Your task to perform on an android device: turn on priority inbox in the gmail app Image 0: 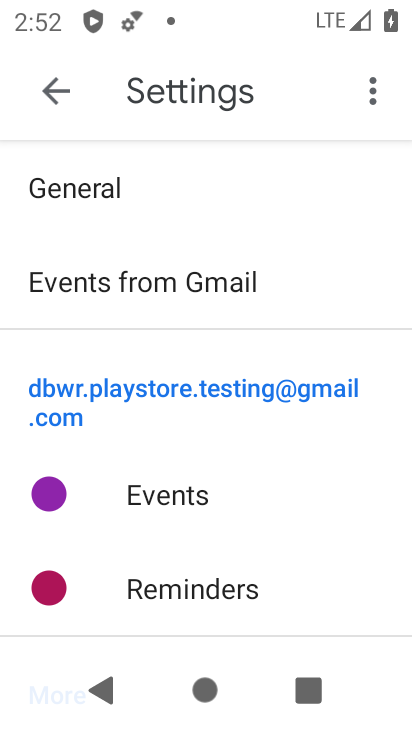
Step 0: press home button
Your task to perform on an android device: turn on priority inbox in the gmail app Image 1: 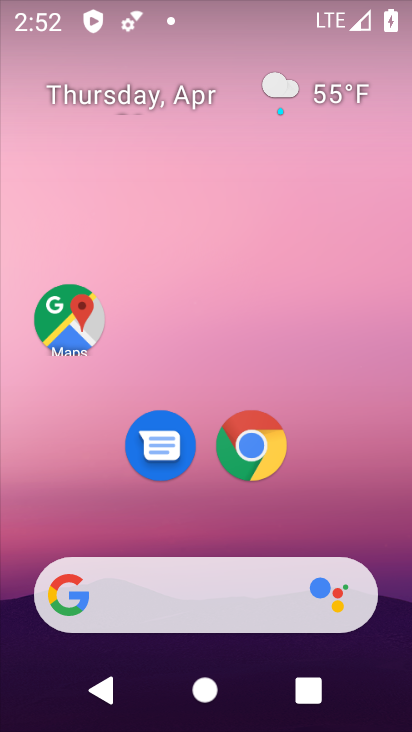
Step 1: drag from (322, 508) to (346, 0)
Your task to perform on an android device: turn on priority inbox in the gmail app Image 2: 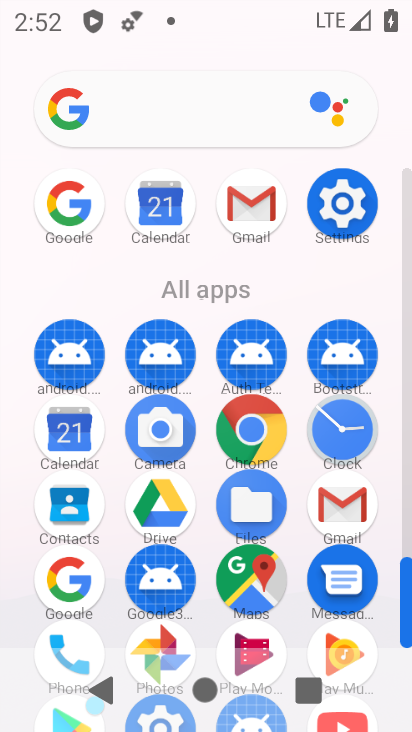
Step 2: click (255, 202)
Your task to perform on an android device: turn on priority inbox in the gmail app Image 3: 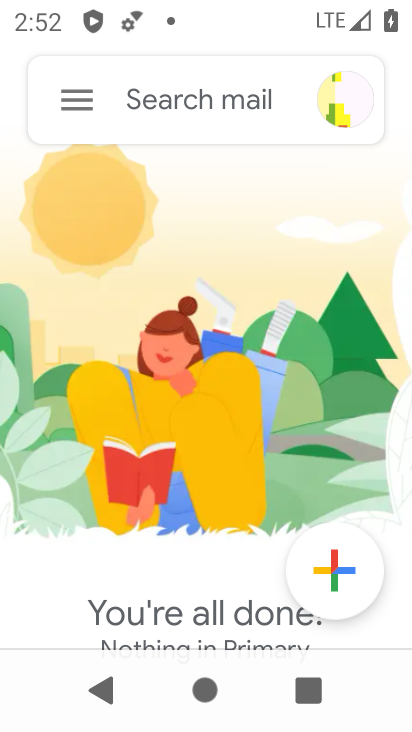
Step 3: click (92, 103)
Your task to perform on an android device: turn on priority inbox in the gmail app Image 4: 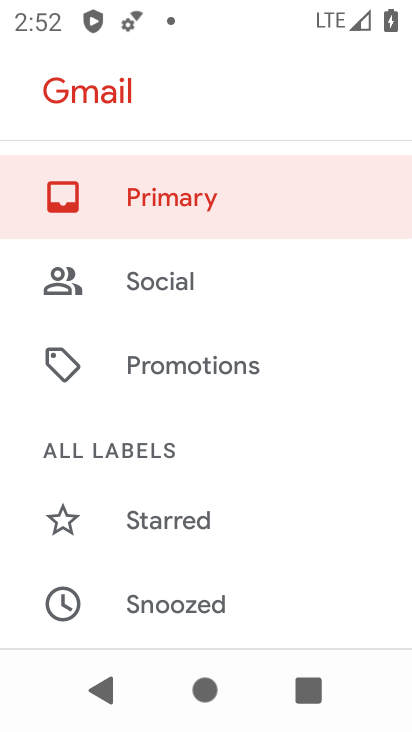
Step 4: drag from (191, 393) to (258, 249)
Your task to perform on an android device: turn on priority inbox in the gmail app Image 5: 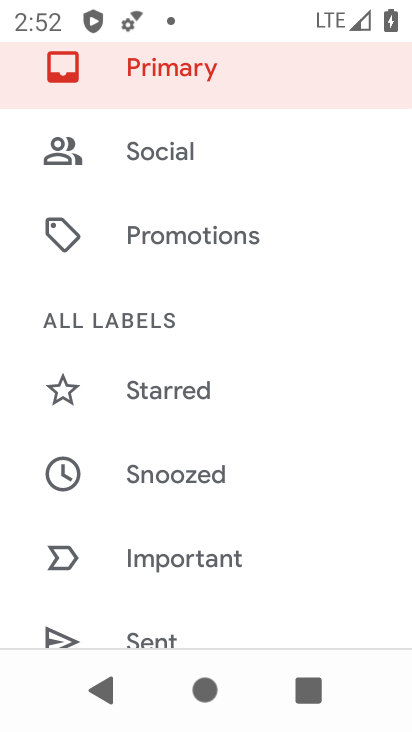
Step 5: drag from (219, 446) to (276, 293)
Your task to perform on an android device: turn on priority inbox in the gmail app Image 6: 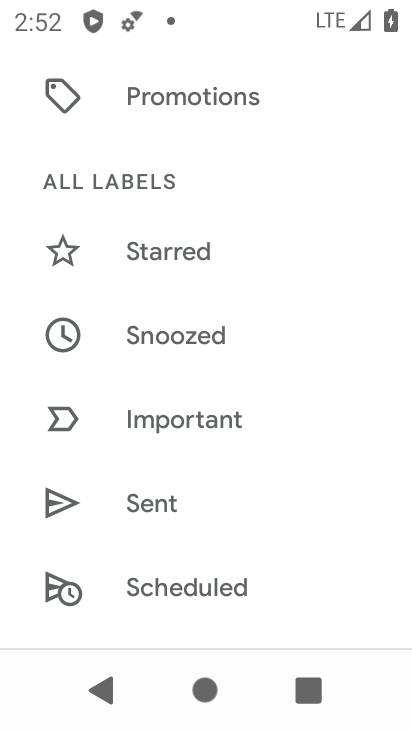
Step 6: drag from (206, 479) to (290, 310)
Your task to perform on an android device: turn on priority inbox in the gmail app Image 7: 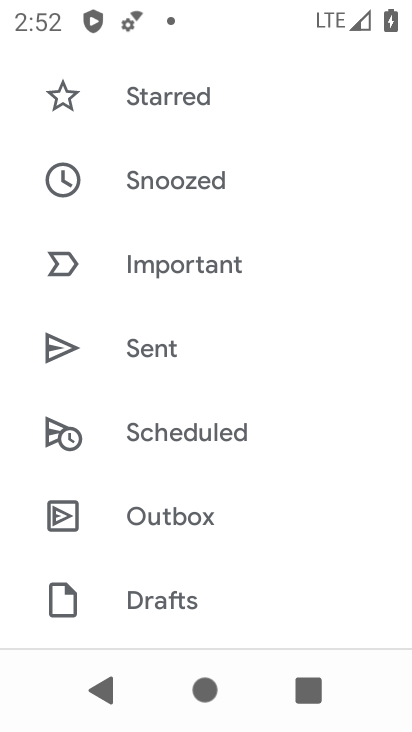
Step 7: drag from (212, 392) to (262, 266)
Your task to perform on an android device: turn on priority inbox in the gmail app Image 8: 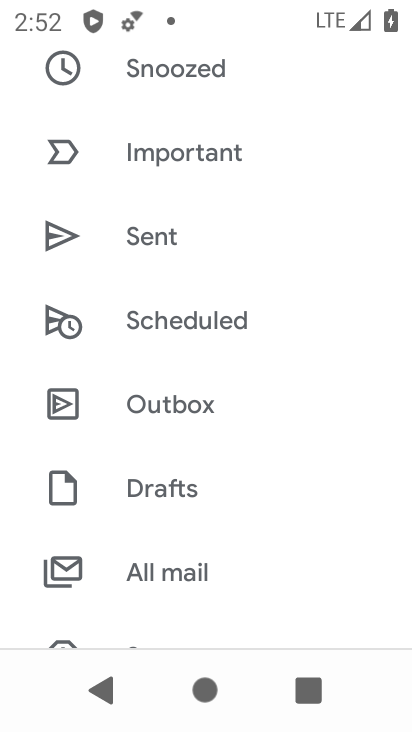
Step 8: drag from (233, 447) to (310, 301)
Your task to perform on an android device: turn on priority inbox in the gmail app Image 9: 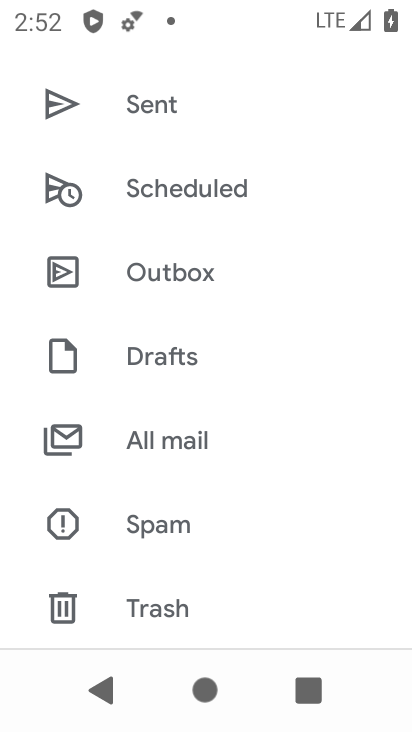
Step 9: drag from (232, 387) to (293, 276)
Your task to perform on an android device: turn on priority inbox in the gmail app Image 10: 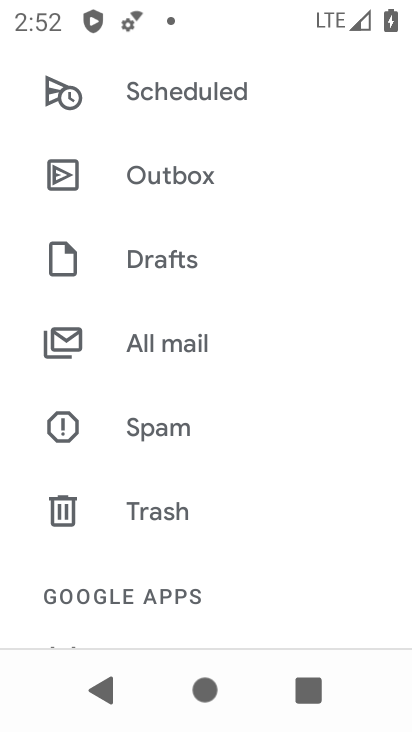
Step 10: drag from (242, 429) to (301, 313)
Your task to perform on an android device: turn on priority inbox in the gmail app Image 11: 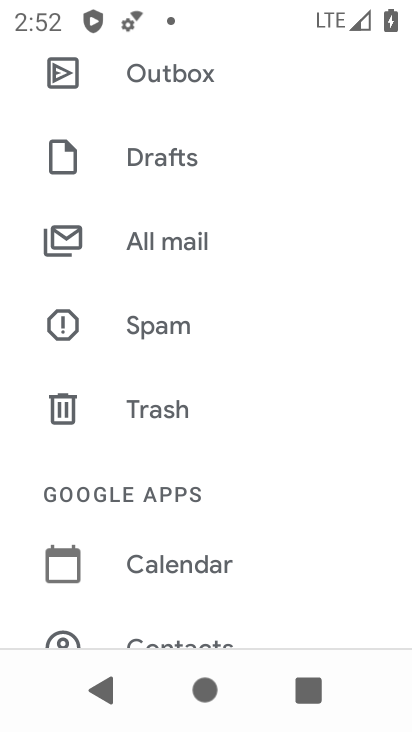
Step 11: drag from (250, 440) to (302, 340)
Your task to perform on an android device: turn on priority inbox in the gmail app Image 12: 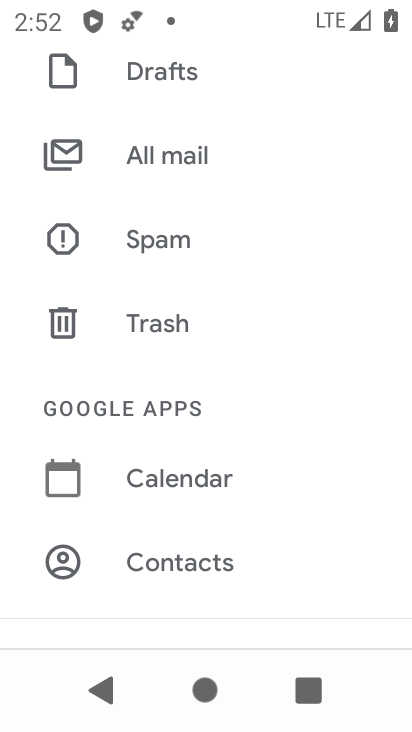
Step 12: drag from (260, 447) to (326, 317)
Your task to perform on an android device: turn on priority inbox in the gmail app Image 13: 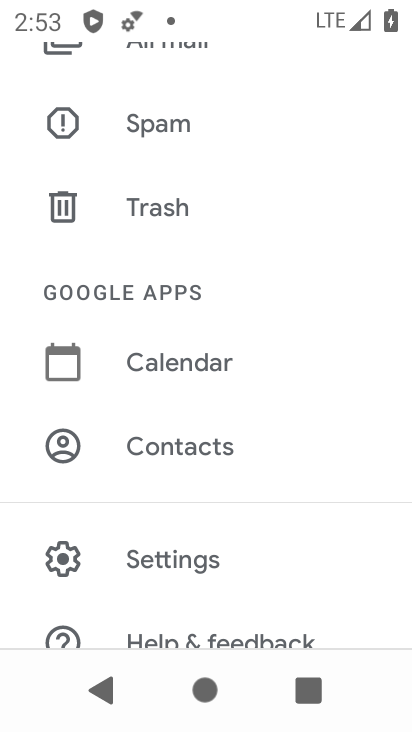
Step 13: click (188, 555)
Your task to perform on an android device: turn on priority inbox in the gmail app Image 14: 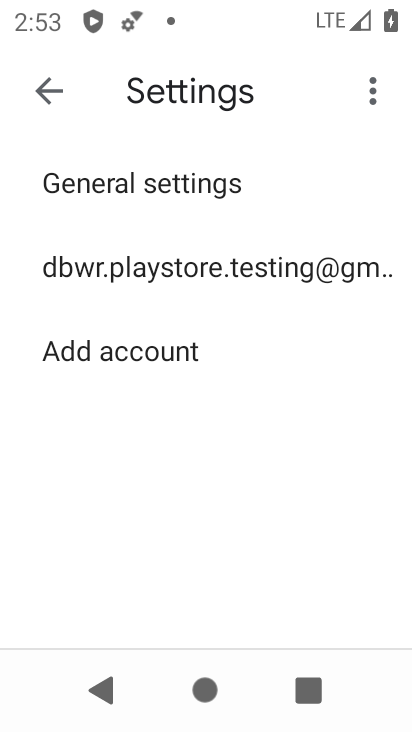
Step 14: click (261, 265)
Your task to perform on an android device: turn on priority inbox in the gmail app Image 15: 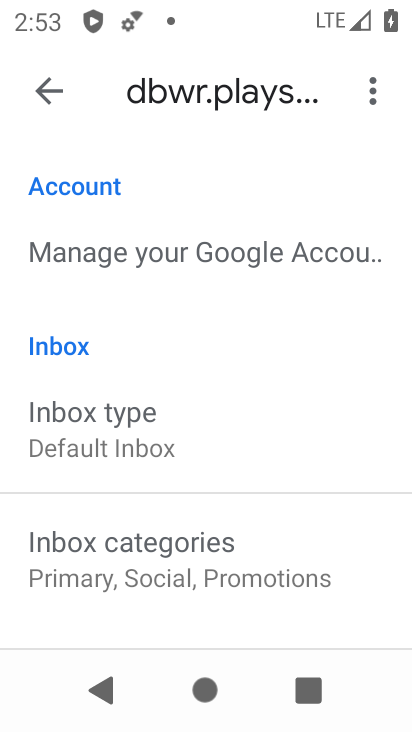
Step 15: click (156, 435)
Your task to perform on an android device: turn on priority inbox in the gmail app Image 16: 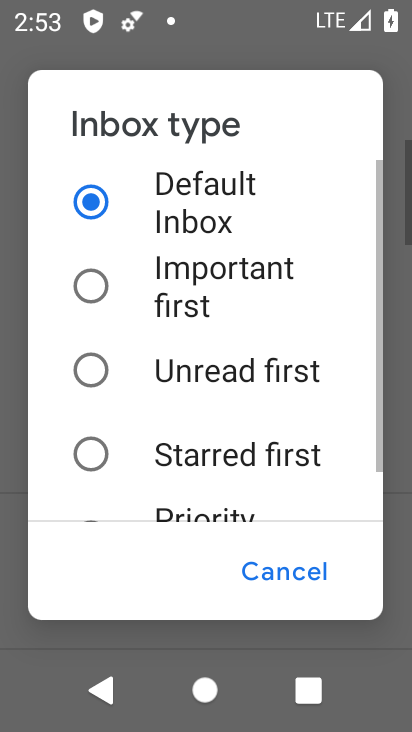
Step 16: drag from (158, 435) to (240, 254)
Your task to perform on an android device: turn on priority inbox in the gmail app Image 17: 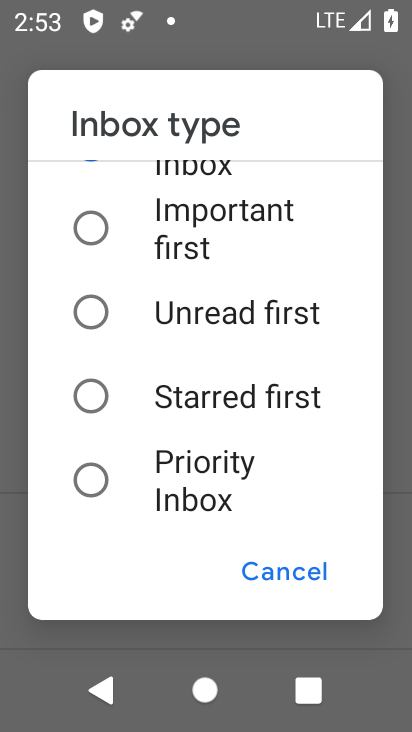
Step 17: click (94, 491)
Your task to perform on an android device: turn on priority inbox in the gmail app Image 18: 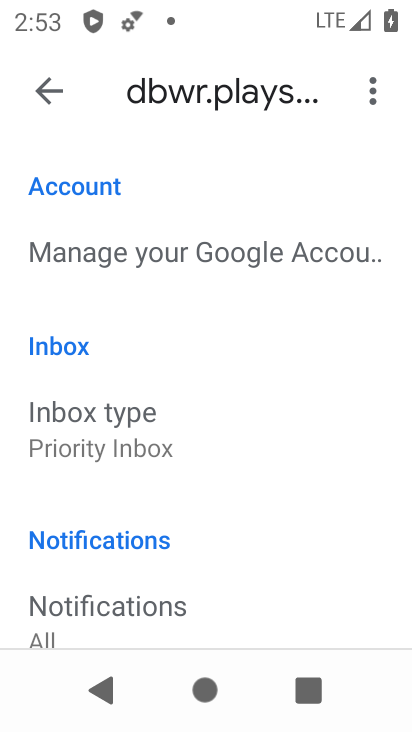
Step 18: task complete